Your task to perform on an android device: Do I have any events tomorrow? Image 0: 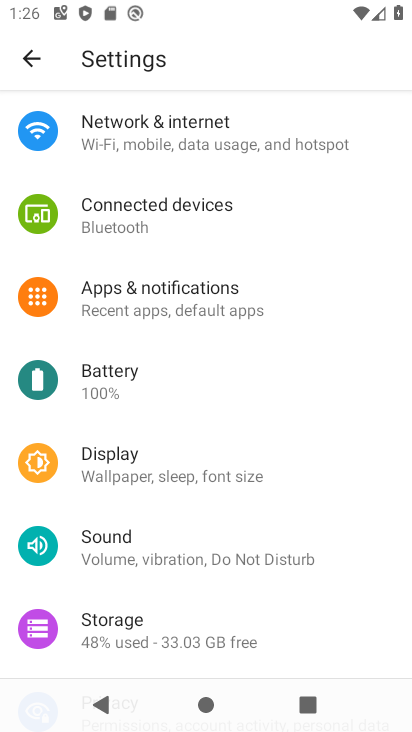
Step 0: press home button
Your task to perform on an android device: Do I have any events tomorrow? Image 1: 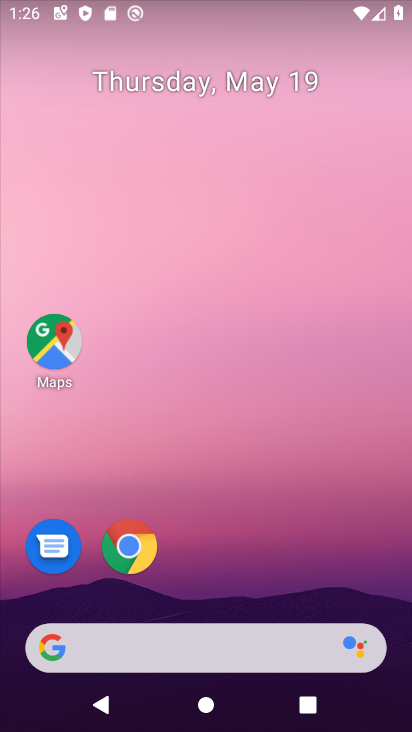
Step 1: drag from (193, 594) to (194, 171)
Your task to perform on an android device: Do I have any events tomorrow? Image 2: 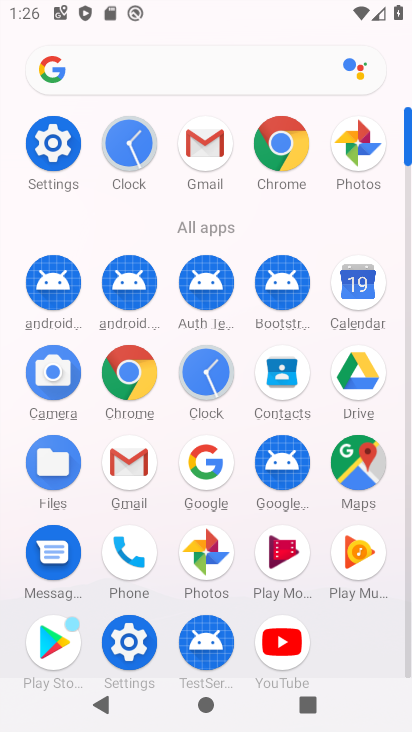
Step 2: click (363, 306)
Your task to perform on an android device: Do I have any events tomorrow? Image 3: 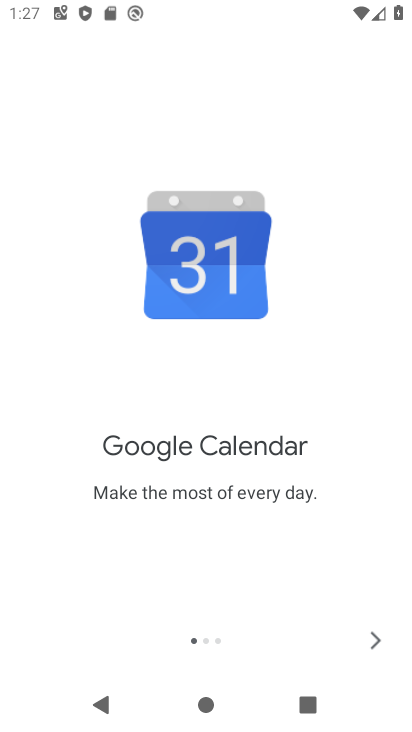
Step 3: click (377, 641)
Your task to perform on an android device: Do I have any events tomorrow? Image 4: 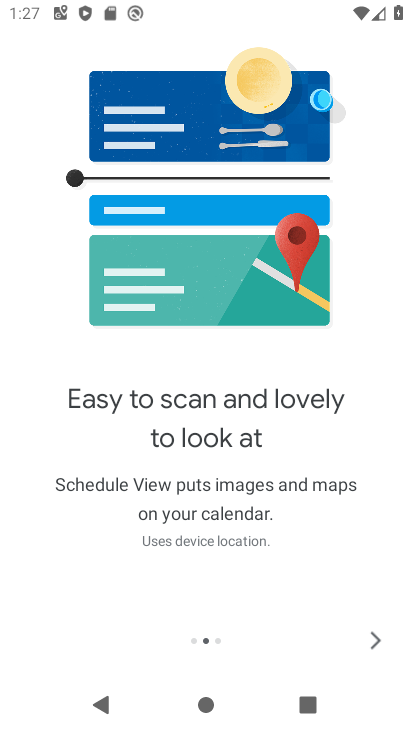
Step 4: click (376, 641)
Your task to perform on an android device: Do I have any events tomorrow? Image 5: 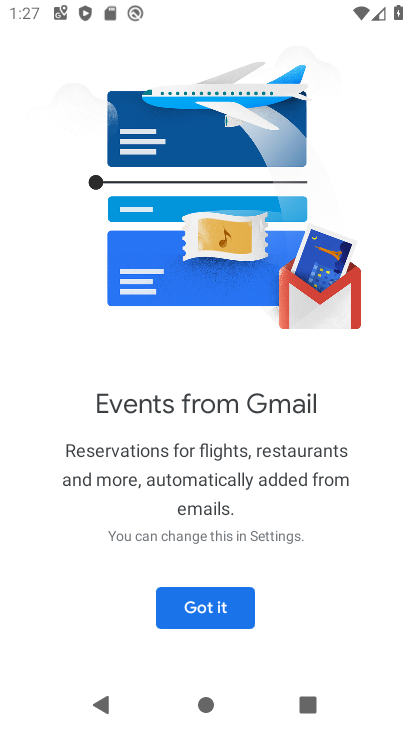
Step 5: click (219, 605)
Your task to perform on an android device: Do I have any events tomorrow? Image 6: 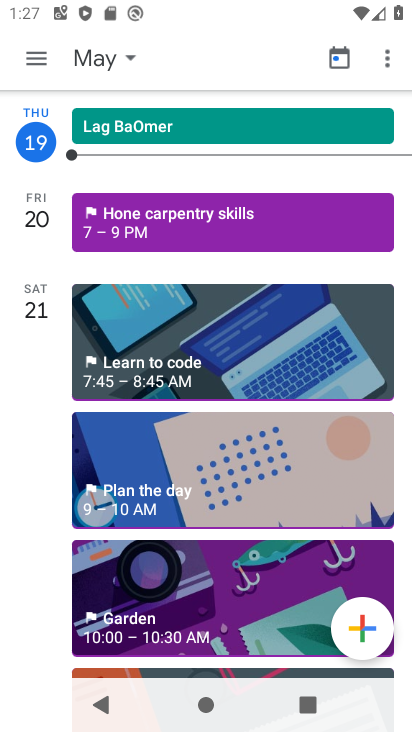
Step 6: click (122, 63)
Your task to perform on an android device: Do I have any events tomorrow? Image 7: 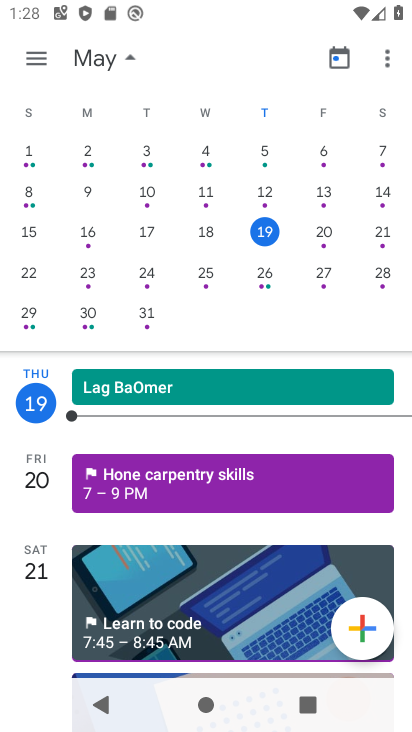
Step 7: task complete